Your task to perform on an android device: change notification settings in the gmail app Image 0: 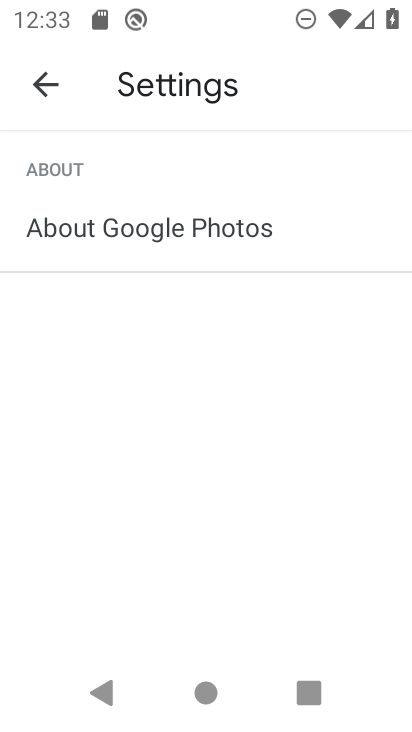
Step 0: press home button
Your task to perform on an android device: change notification settings in the gmail app Image 1: 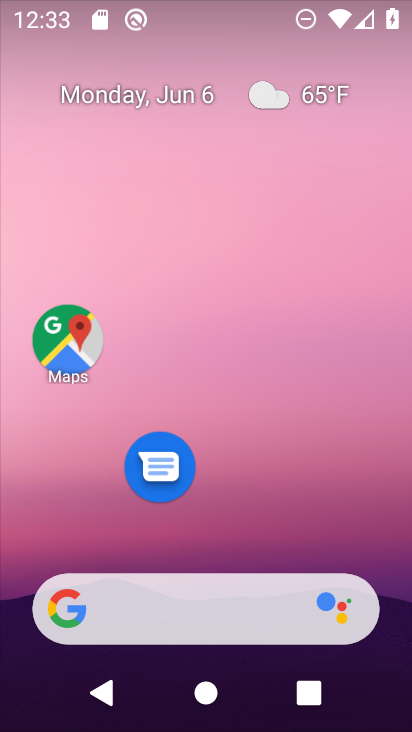
Step 1: drag from (368, 520) to (408, 270)
Your task to perform on an android device: change notification settings in the gmail app Image 2: 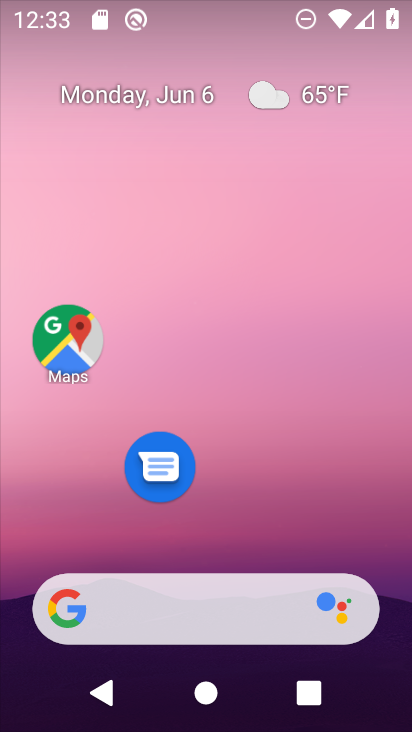
Step 2: drag from (263, 647) to (336, 305)
Your task to perform on an android device: change notification settings in the gmail app Image 3: 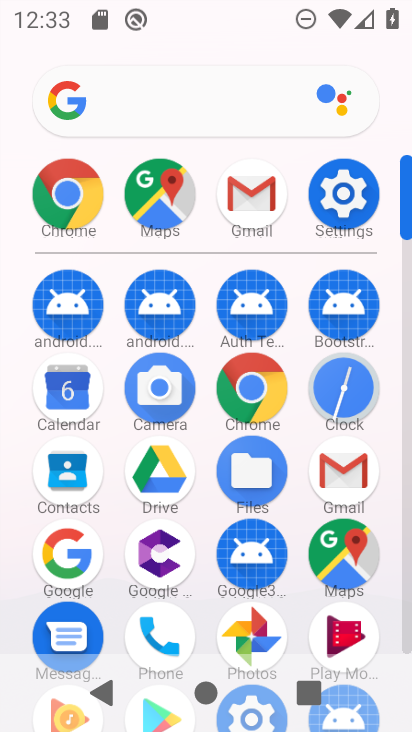
Step 3: click (250, 232)
Your task to perform on an android device: change notification settings in the gmail app Image 4: 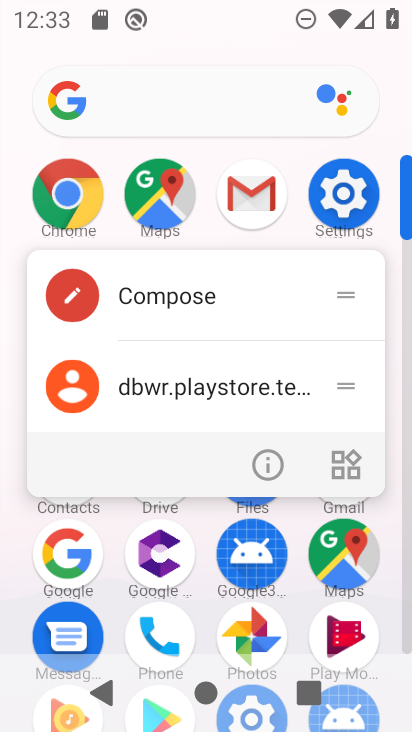
Step 4: click (271, 460)
Your task to perform on an android device: change notification settings in the gmail app Image 5: 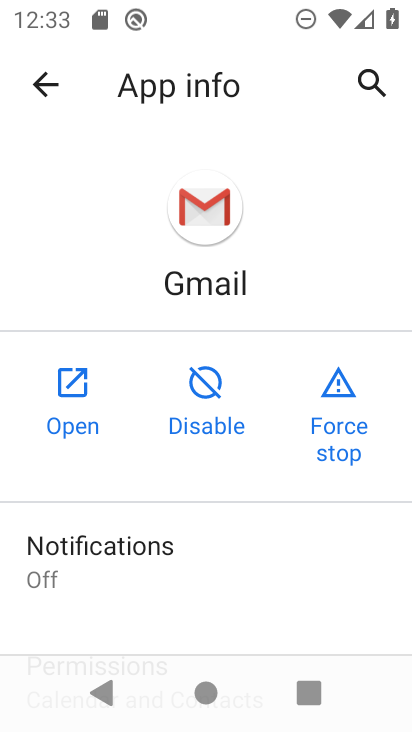
Step 5: click (119, 570)
Your task to perform on an android device: change notification settings in the gmail app Image 6: 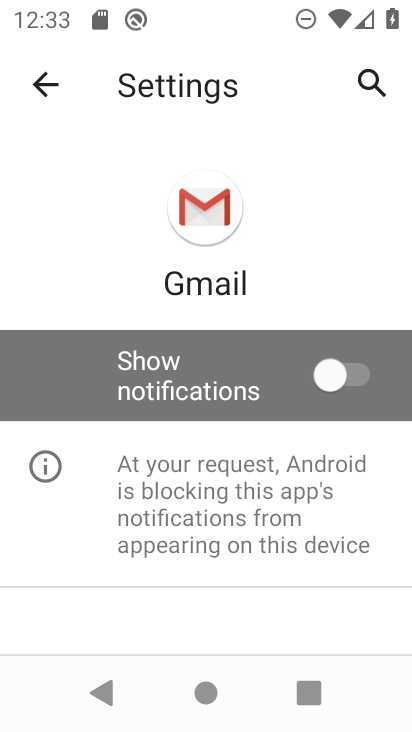
Step 6: click (205, 372)
Your task to perform on an android device: change notification settings in the gmail app Image 7: 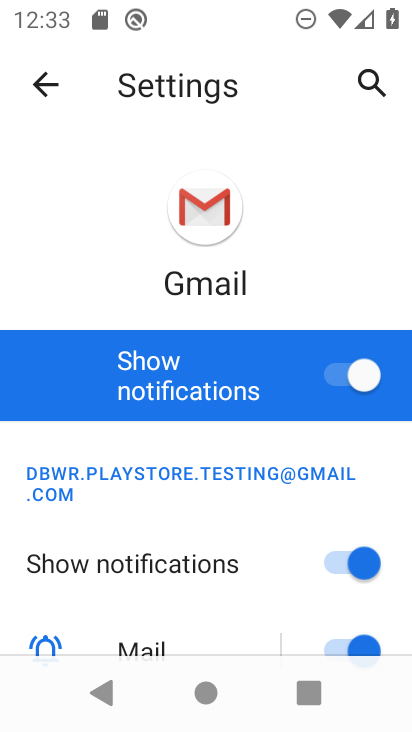
Step 7: task complete